Your task to perform on an android device: Open Google Maps and go to "Timeline" Image 0: 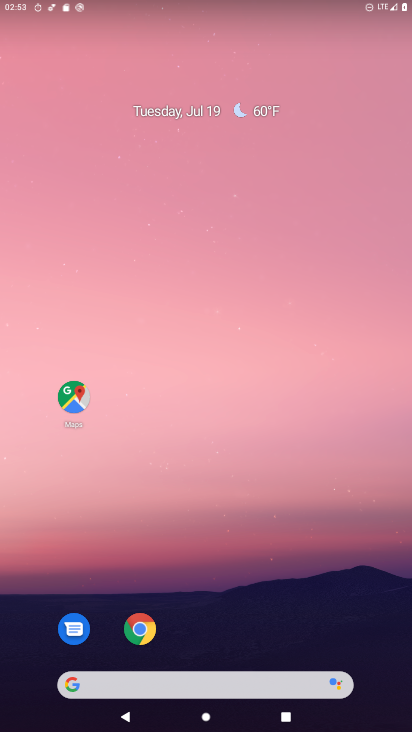
Step 0: click (72, 414)
Your task to perform on an android device: Open Google Maps and go to "Timeline" Image 1: 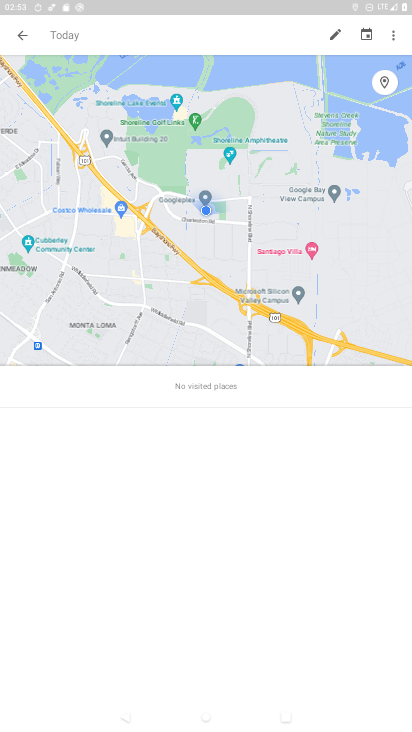
Step 1: click (23, 32)
Your task to perform on an android device: Open Google Maps and go to "Timeline" Image 2: 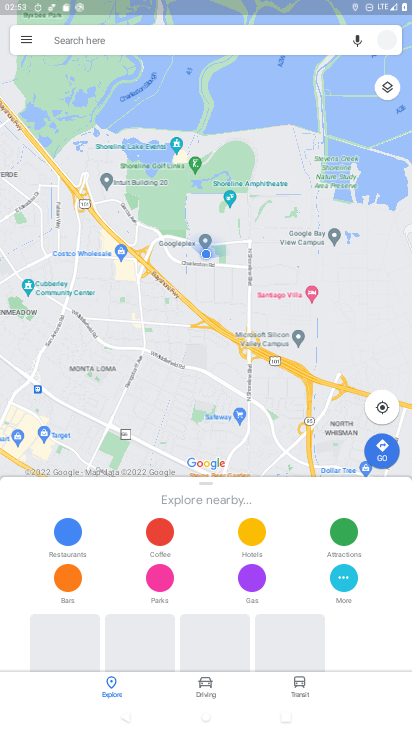
Step 2: click (22, 48)
Your task to perform on an android device: Open Google Maps and go to "Timeline" Image 3: 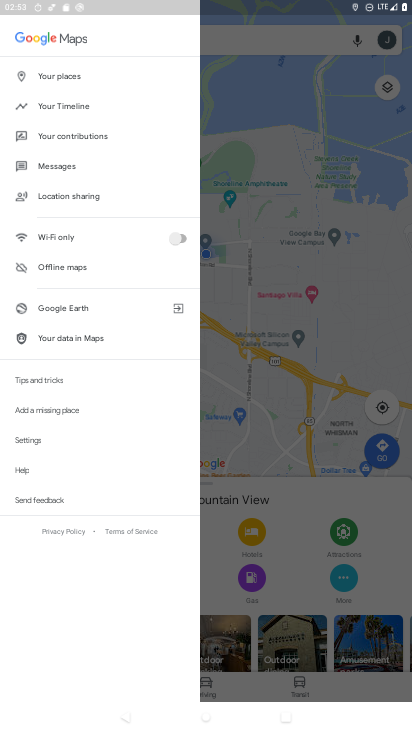
Step 3: click (81, 102)
Your task to perform on an android device: Open Google Maps and go to "Timeline" Image 4: 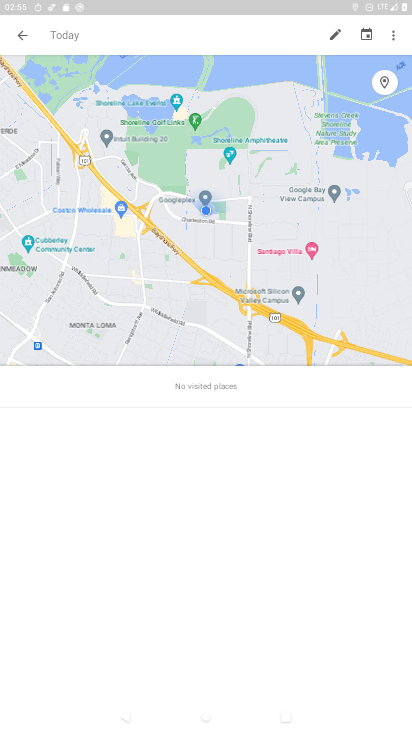
Step 4: task complete